Your task to perform on an android device: see sites visited before in the chrome app Image 0: 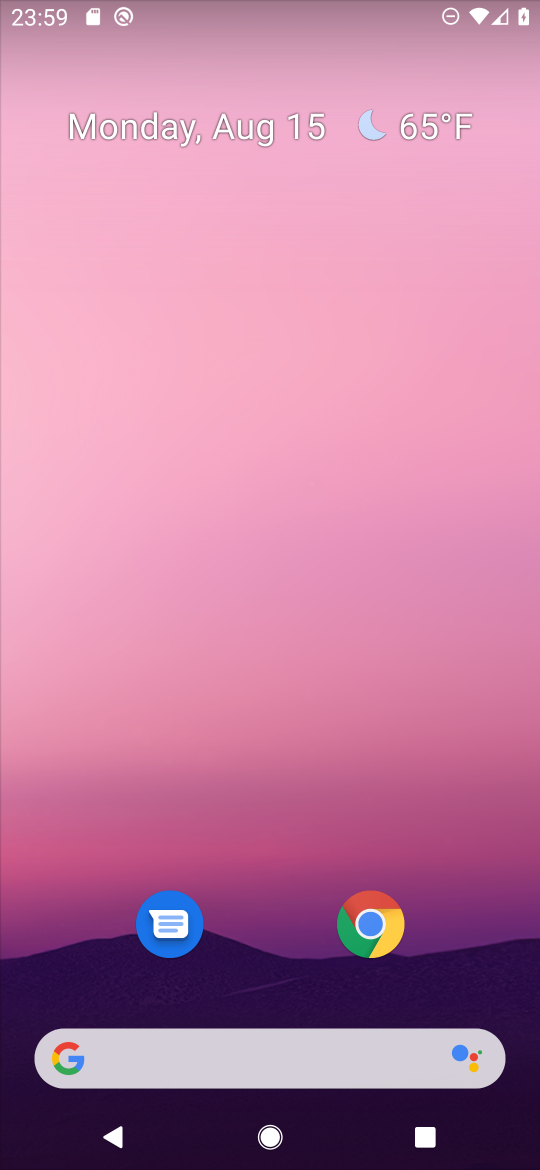
Step 0: click (386, 932)
Your task to perform on an android device: see sites visited before in the chrome app Image 1: 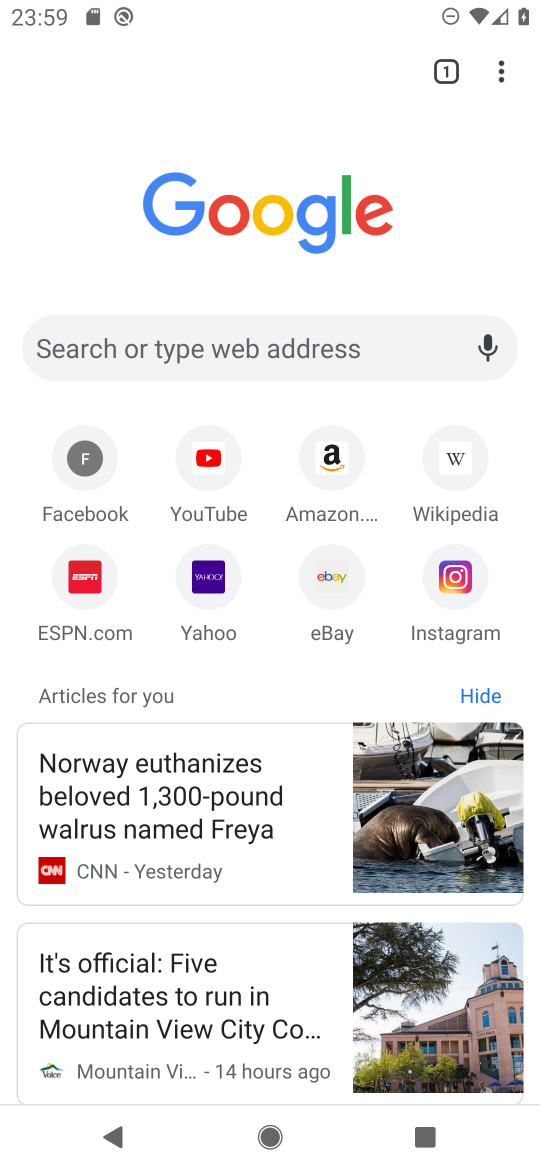
Step 1: click (506, 66)
Your task to perform on an android device: see sites visited before in the chrome app Image 2: 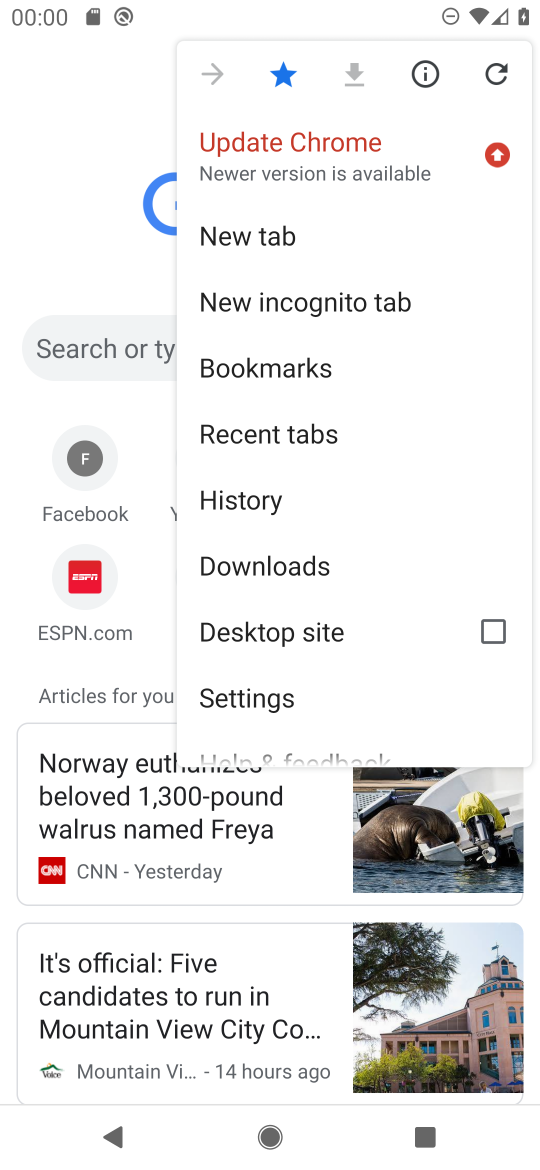
Step 2: click (282, 496)
Your task to perform on an android device: see sites visited before in the chrome app Image 3: 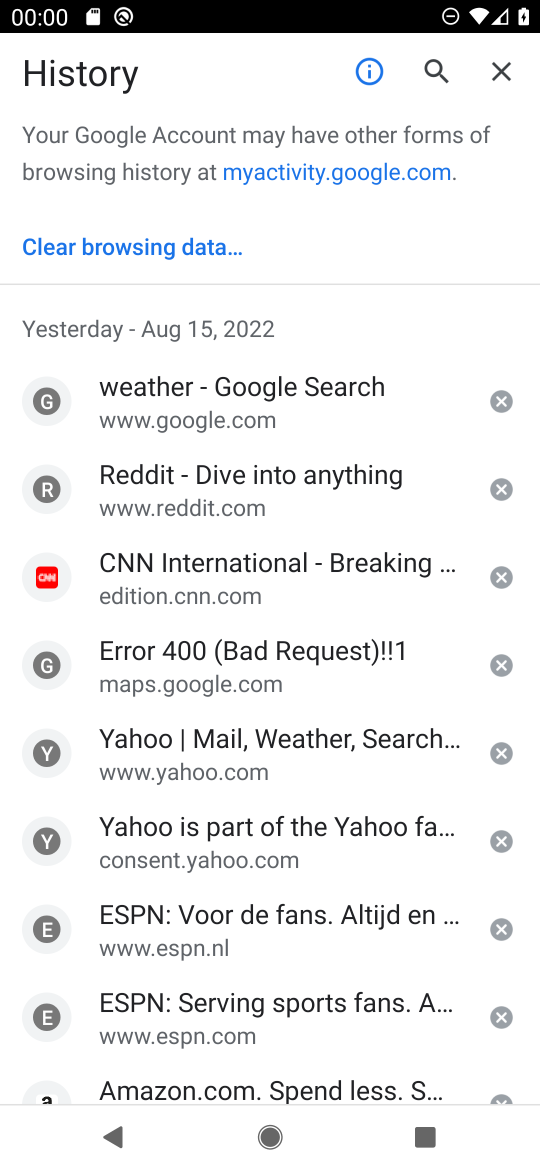
Step 3: task complete